Your task to perform on an android device: Open the web browser Image 0: 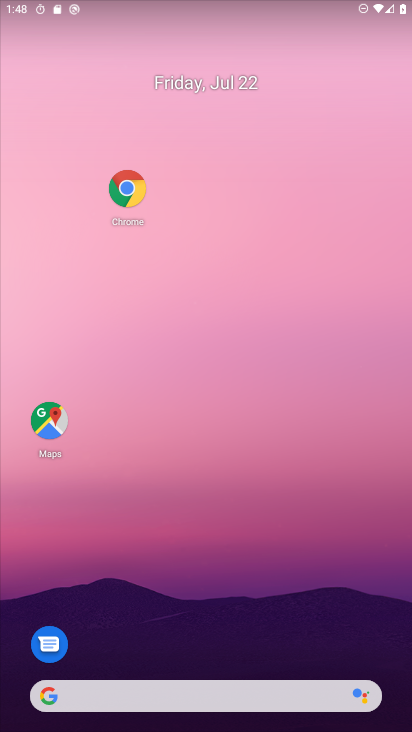
Step 0: click (151, 709)
Your task to perform on an android device: Open the web browser Image 1: 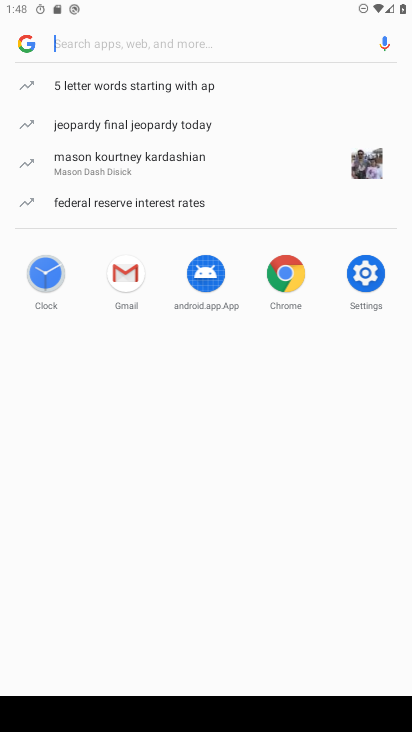
Step 1: task complete